Your task to perform on an android device: Go to ESPN.com Image 0: 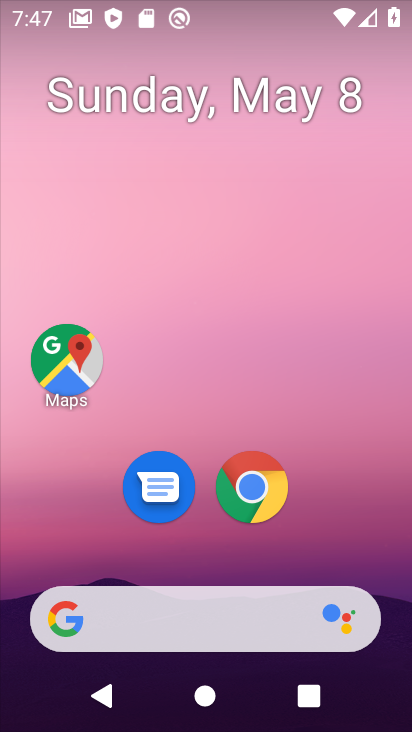
Step 0: click (266, 502)
Your task to perform on an android device: Go to ESPN.com Image 1: 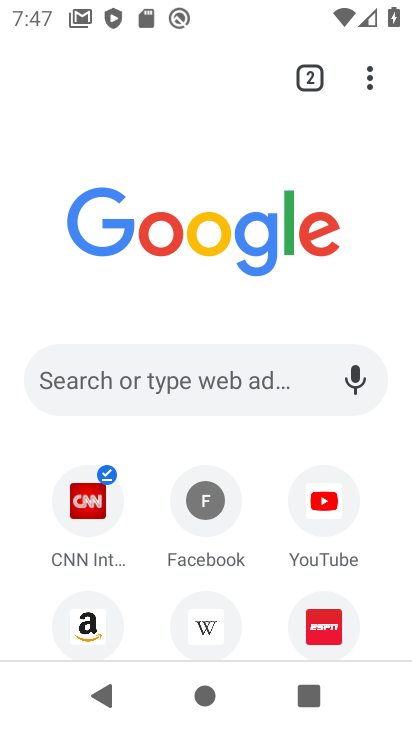
Step 1: click (318, 624)
Your task to perform on an android device: Go to ESPN.com Image 2: 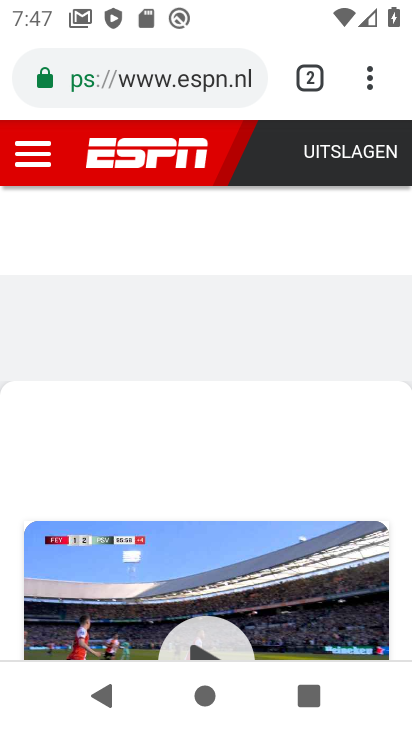
Step 2: task complete